Your task to perform on an android device: Go to accessibility settings Image 0: 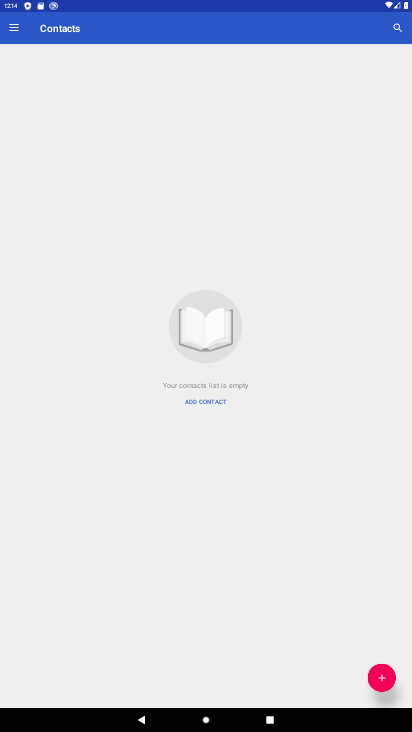
Step 0: press home button
Your task to perform on an android device: Go to accessibility settings Image 1: 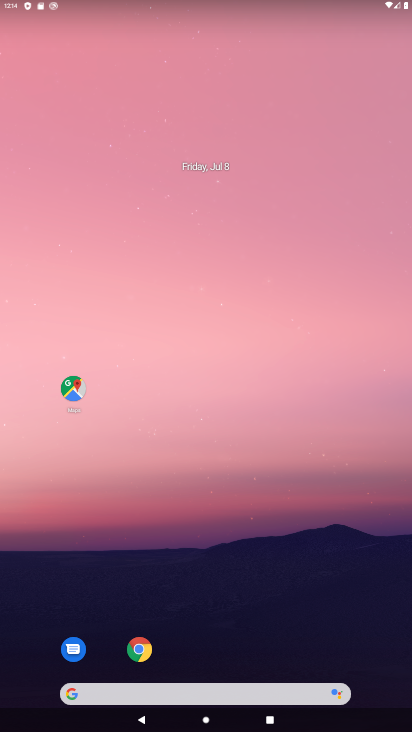
Step 1: drag from (209, 679) to (324, 109)
Your task to perform on an android device: Go to accessibility settings Image 2: 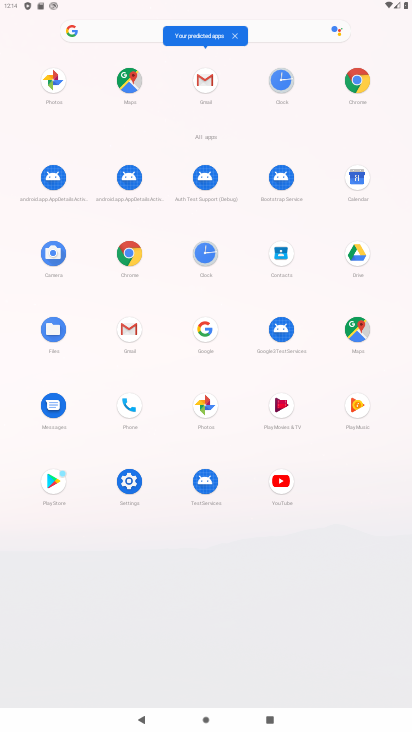
Step 2: click (145, 481)
Your task to perform on an android device: Go to accessibility settings Image 3: 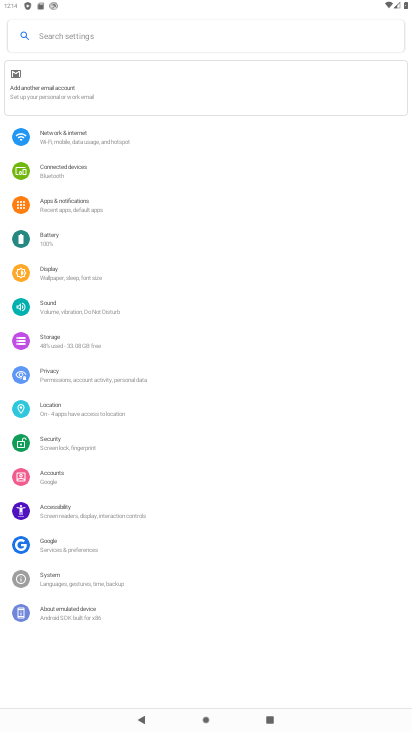
Step 3: drag from (66, 511) to (148, 320)
Your task to perform on an android device: Go to accessibility settings Image 4: 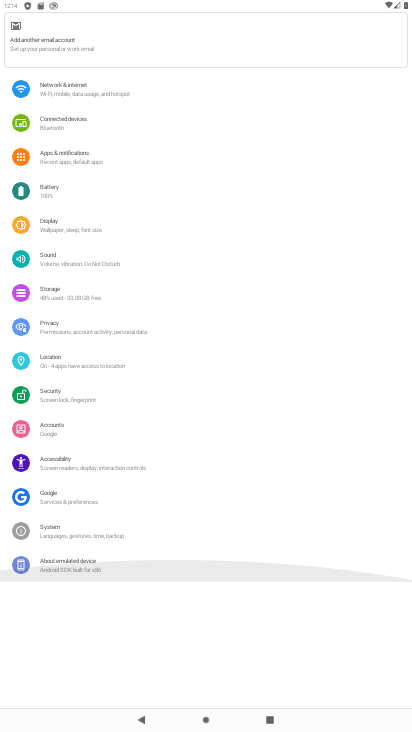
Step 4: click (91, 462)
Your task to perform on an android device: Go to accessibility settings Image 5: 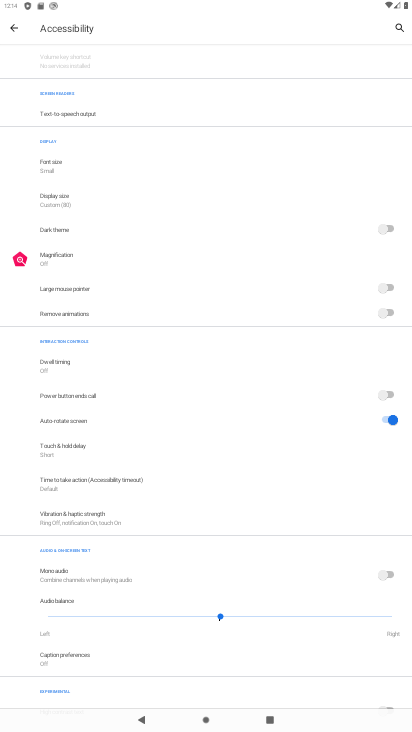
Step 5: task complete